Your task to perform on an android device: turn off wifi Image 0: 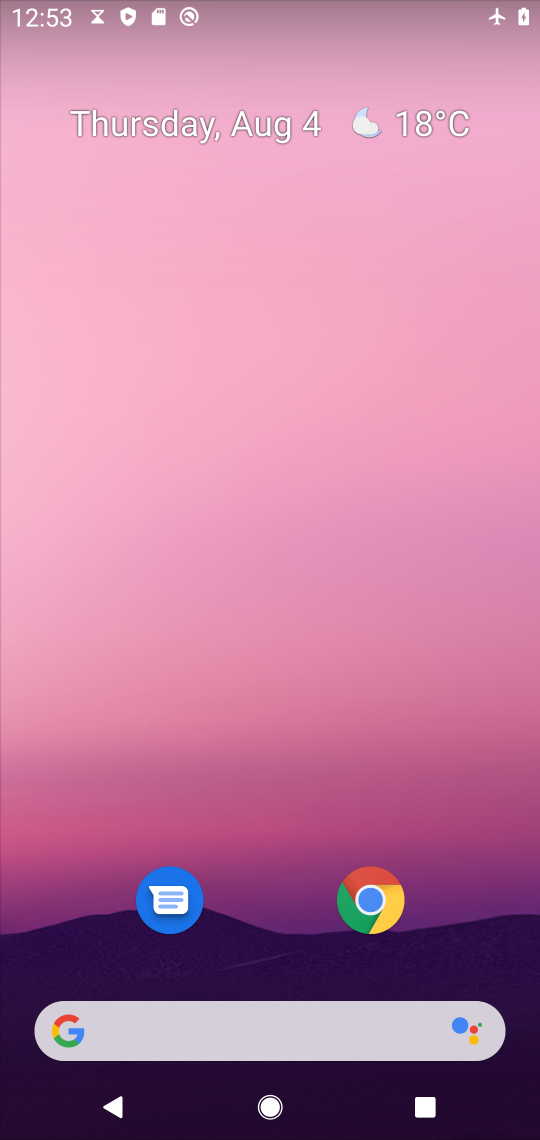
Step 0: press home button
Your task to perform on an android device: turn off wifi Image 1: 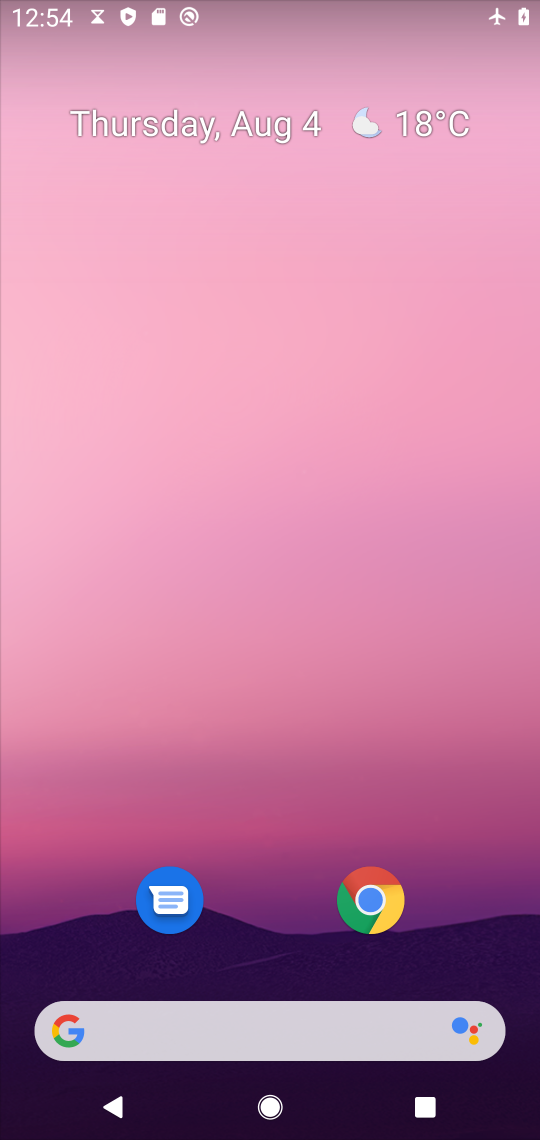
Step 1: task complete